Your task to perform on an android device: Go to battery settings Image 0: 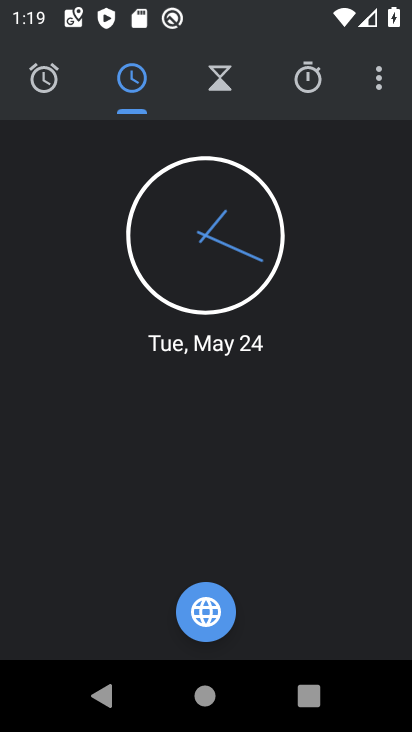
Step 0: press home button
Your task to perform on an android device: Go to battery settings Image 1: 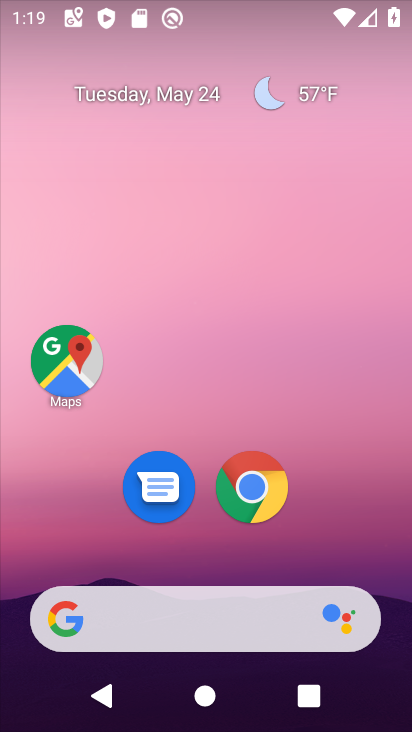
Step 1: drag from (232, 709) to (223, 107)
Your task to perform on an android device: Go to battery settings Image 2: 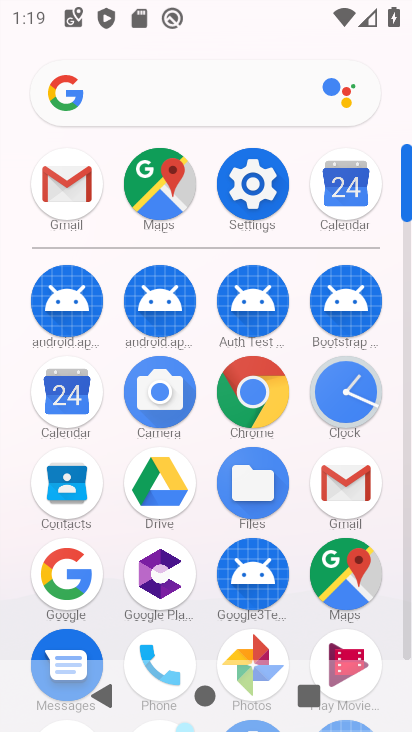
Step 2: click (254, 178)
Your task to perform on an android device: Go to battery settings Image 3: 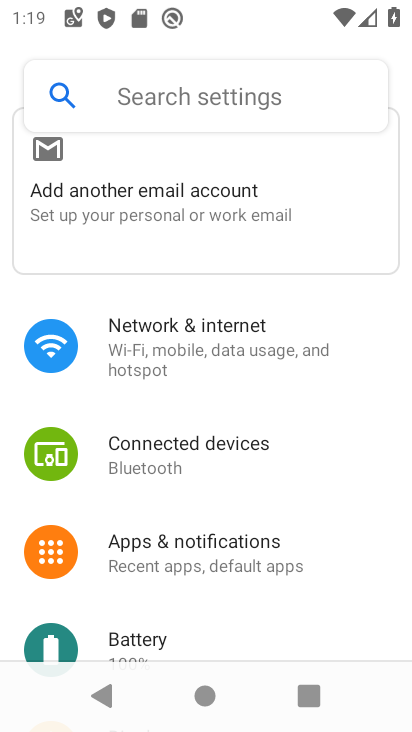
Step 3: click (133, 632)
Your task to perform on an android device: Go to battery settings Image 4: 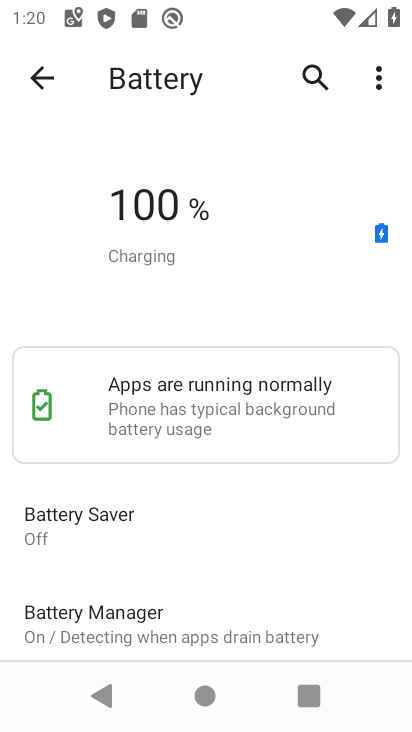
Step 4: task complete